Your task to perform on an android device: turn off airplane mode Image 0: 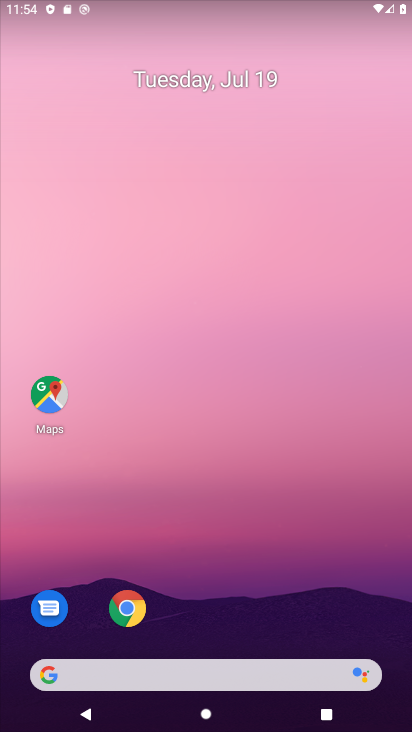
Step 0: drag from (138, 680) to (191, 142)
Your task to perform on an android device: turn off airplane mode Image 1: 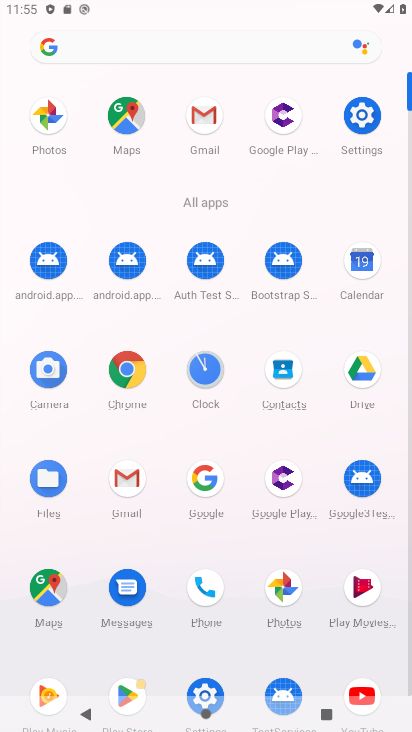
Step 1: click (362, 113)
Your task to perform on an android device: turn off airplane mode Image 2: 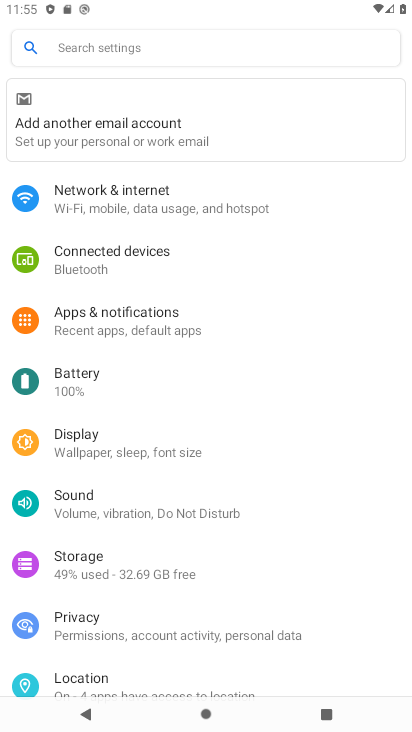
Step 2: click (176, 202)
Your task to perform on an android device: turn off airplane mode Image 3: 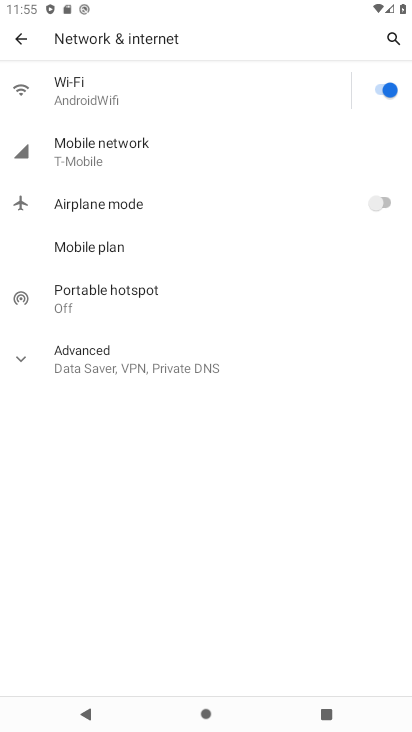
Step 3: task complete